Your task to perform on an android device: find snoozed emails in the gmail app Image 0: 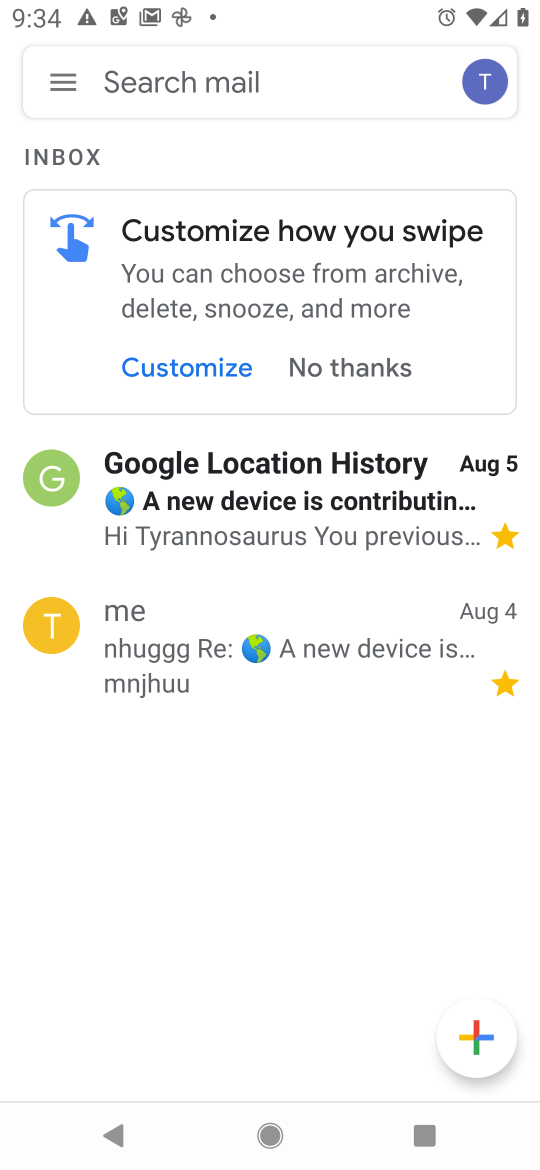
Step 0: press home button
Your task to perform on an android device: find snoozed emails in the gmail app Image 1: 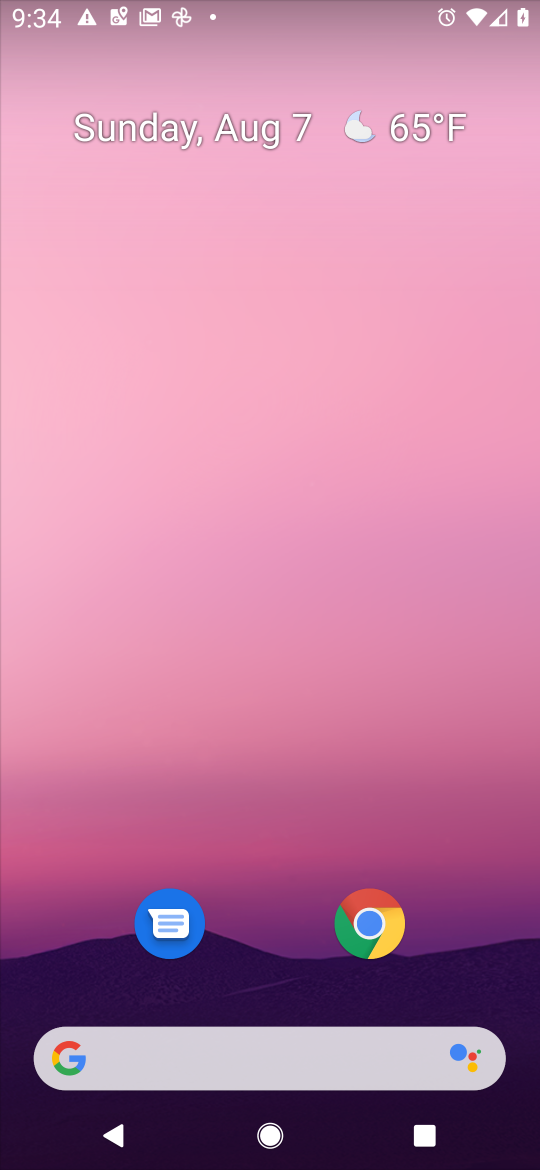
Step 1: drag from (492, 995) to (257, 27)
Your task to perform on an android device: find snoozed emails in the gmail app Image 2: 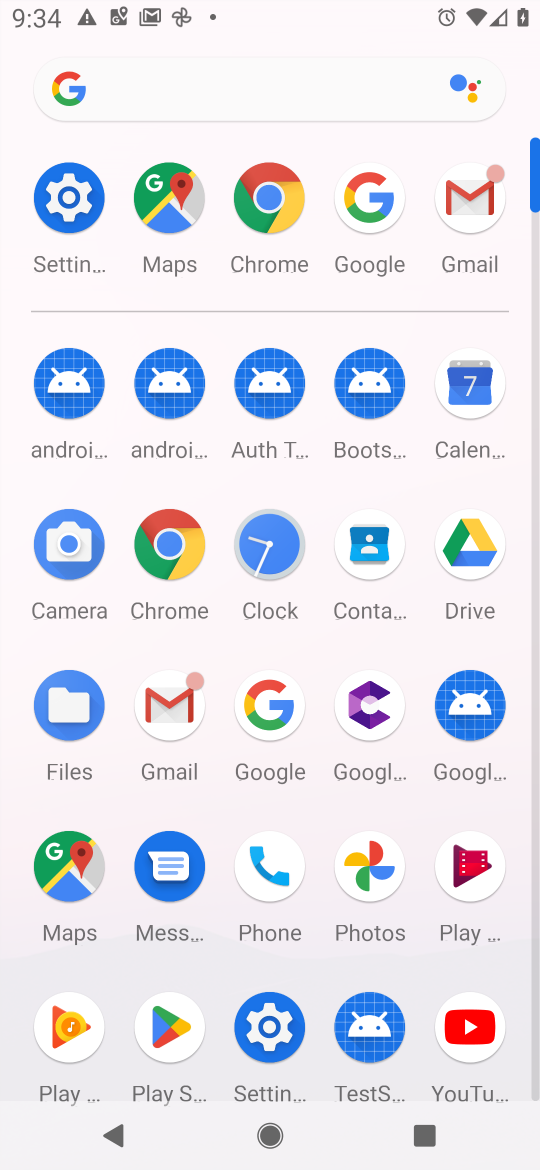
Step 2: click (196, 725)
Your task to perform on an android device: find snoozed emails in the gmail app Image 3: 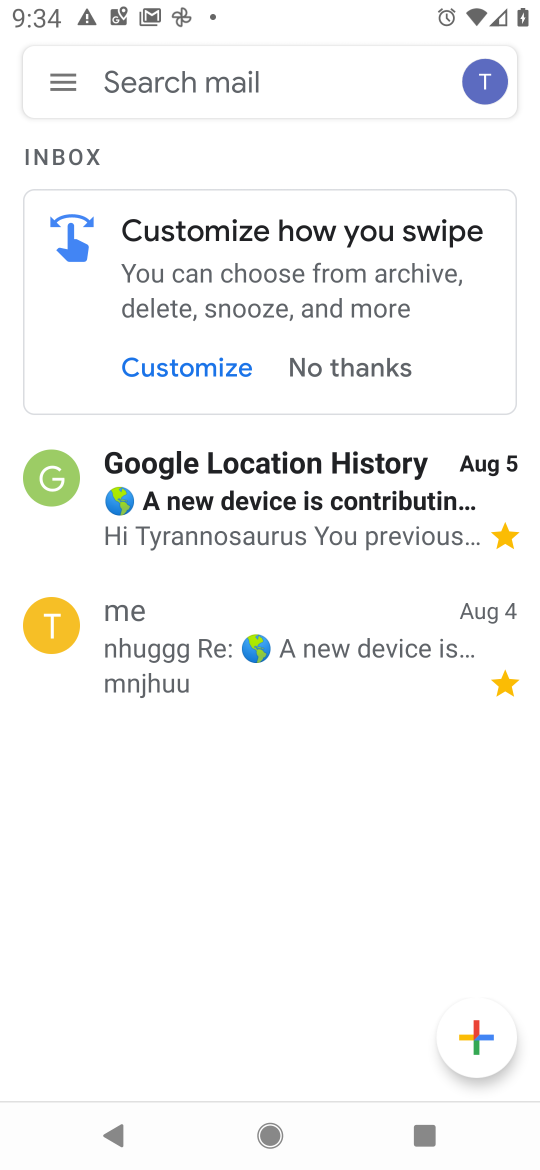
Step 3: click (53, 61)
Your task to perform on an android device: find snoozed emails in the gmail app Image 4: 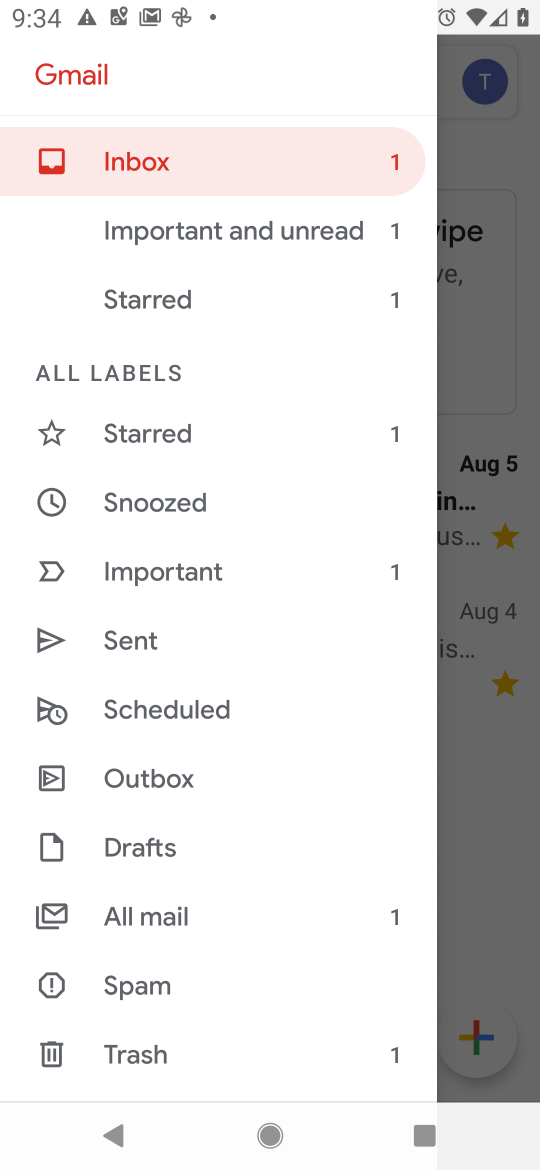
Step 4: click (150, 506)
Your task to perform on an android device: find snoozed emails in the gmail app Image 5: 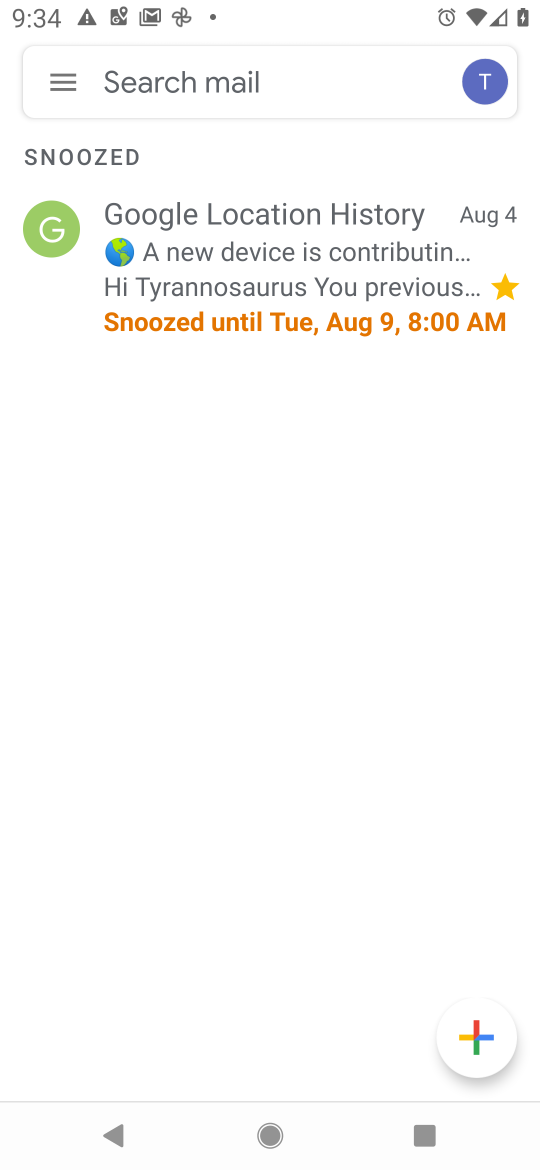
Step 5: task complete